Your task to perform on an android device: turn off notifications settings in the gmail app Image 0: 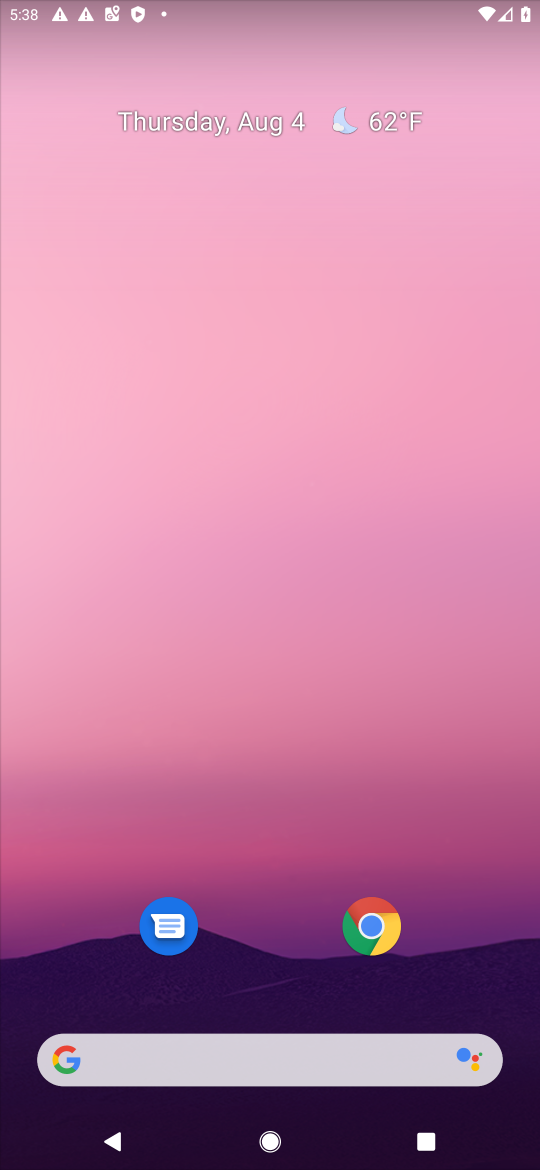
Step 0: drag from (257, 985) to (312, 107)
Your task to perform on an android device: turn off notifications settings in the gmail app Image 1: 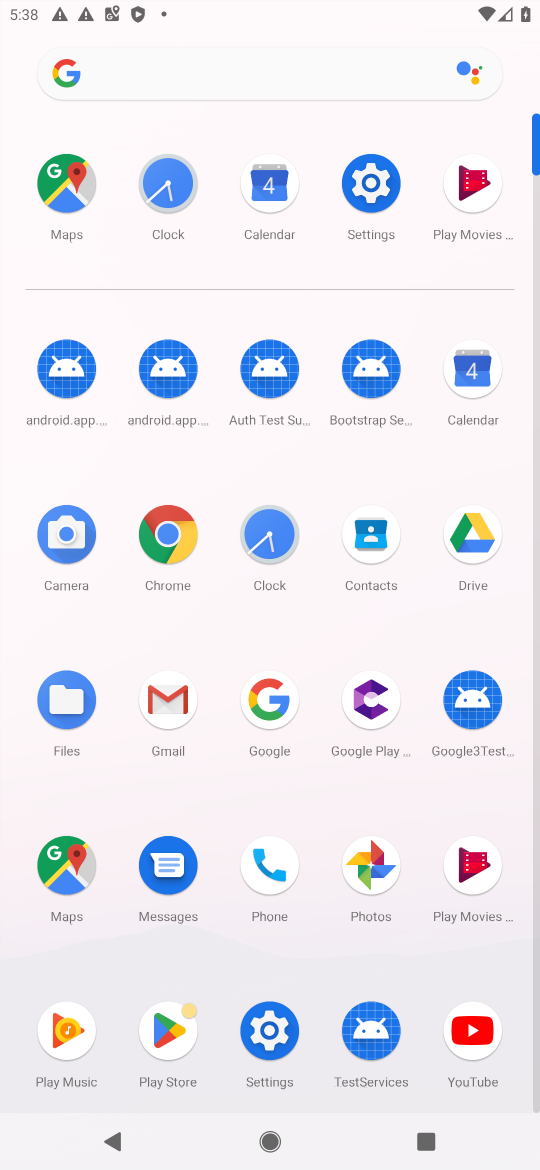
Step 1: click (164, 698)
Your task to perform on an android device: turn off notifications settings in the gmail app Image 2: 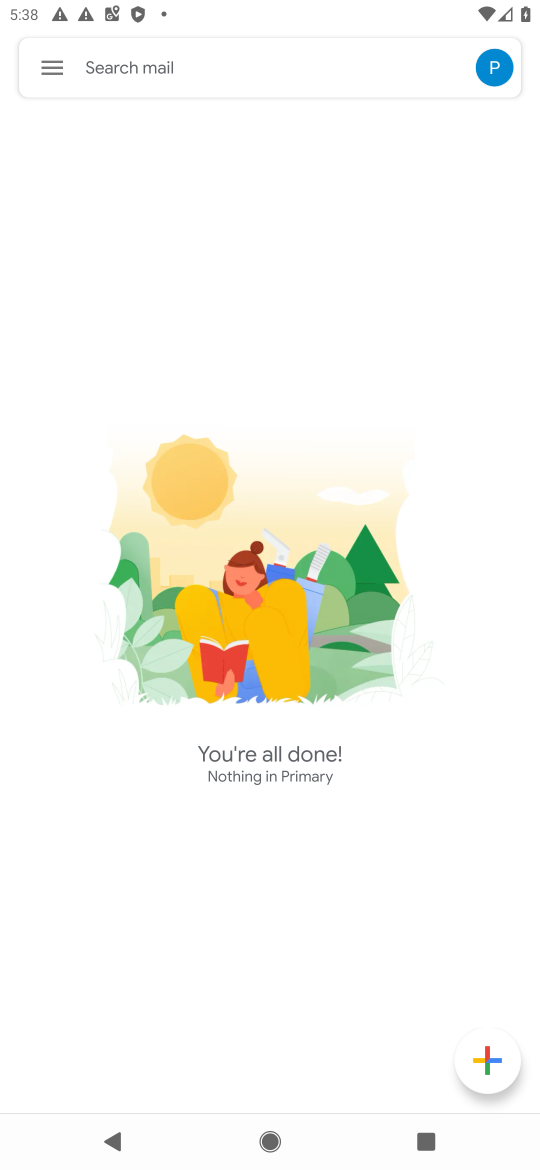
Step 2: click (40, 73)
Your task to perform on an android device: turn off notifications settings in the gmail app Image 3: 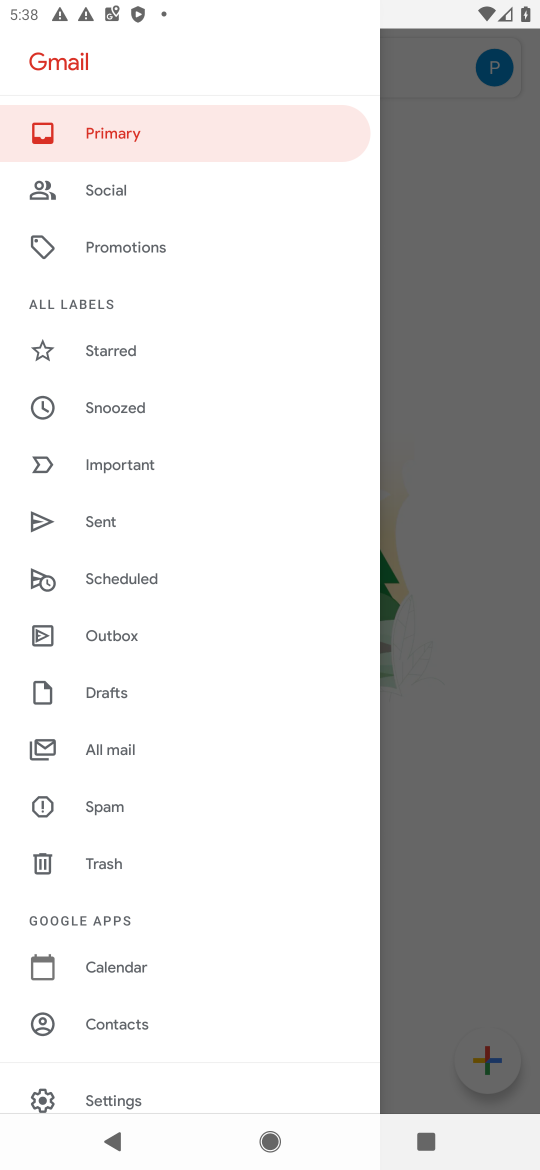
Step 3: click (127, 1098)
Your task to perform on an android device: turn off notifications settings in the gmail app Image 4: 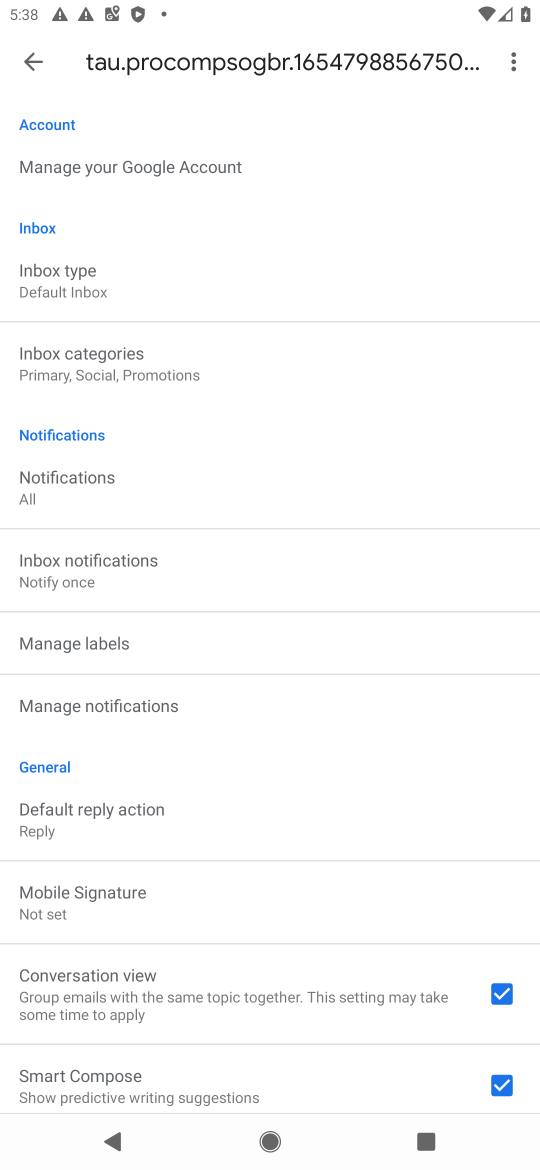
Step 4: click (108, 710)
Your task to perform on an android device: turn off notifications settings in the gmail app Image 5: 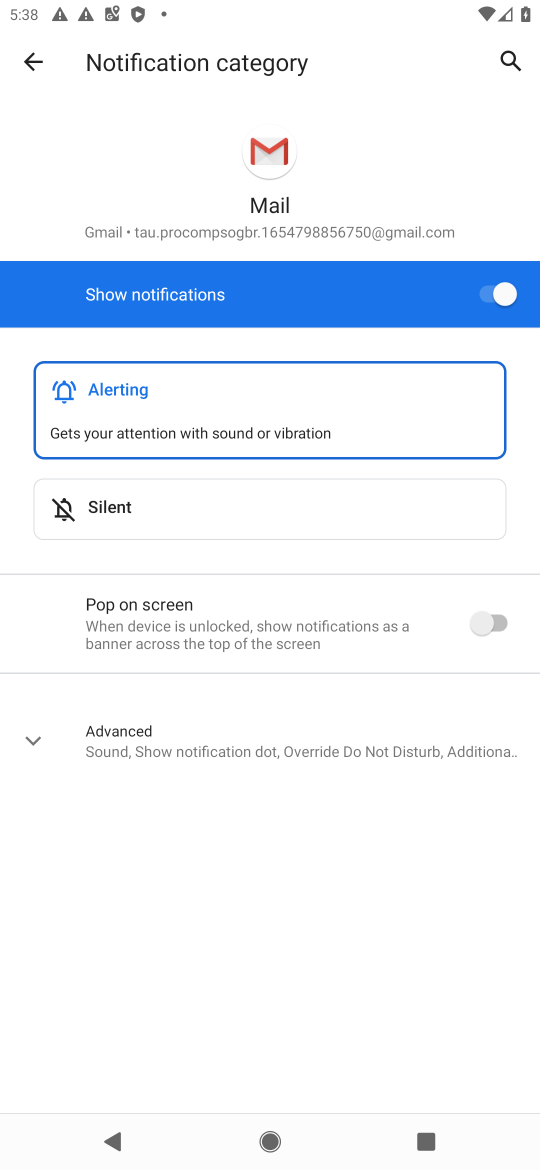
Step 5: click (499, 297)
Your task to perform on an android device: turn off notifications settings in the gmail app Image 6: 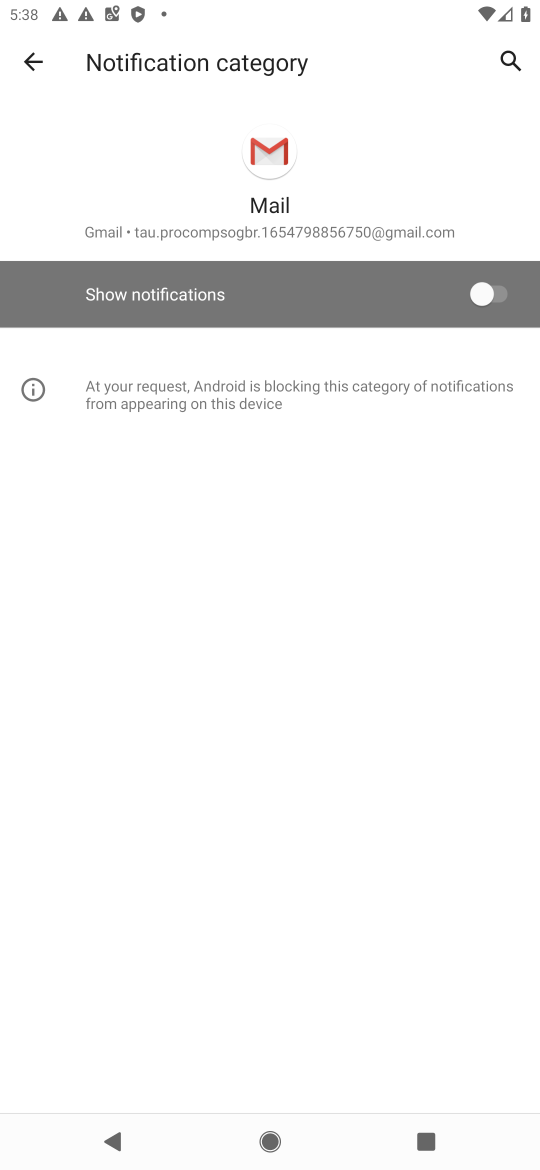
Step 6: task complete